Your task to perform on an android device: delete the emails in spam in the gmail app Image 0: 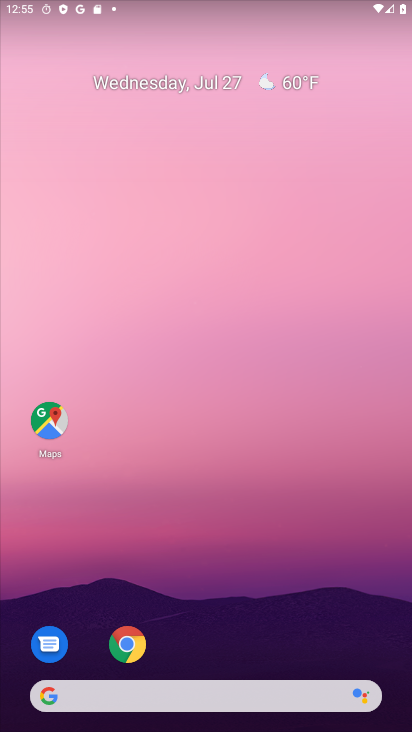
Step 0: click (220, 19)
Your task to perform on an android device: delete the emails in spam in the gmail app Image 1: 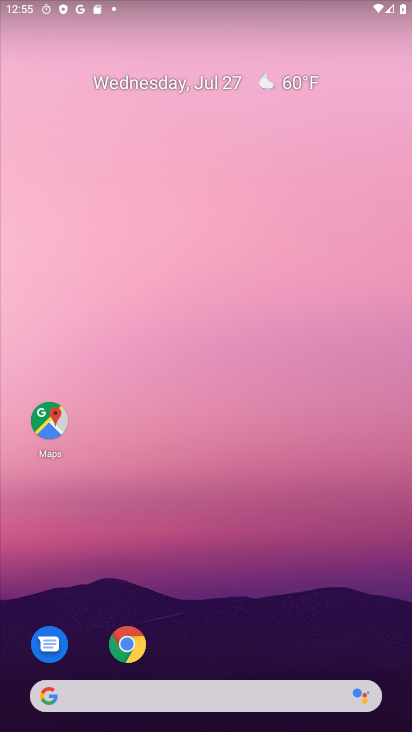
Step 1: drag from (168, 661) to (265, 75)
Your task to perform on an android device: delete the emails in spam in the gmail app Image 2: 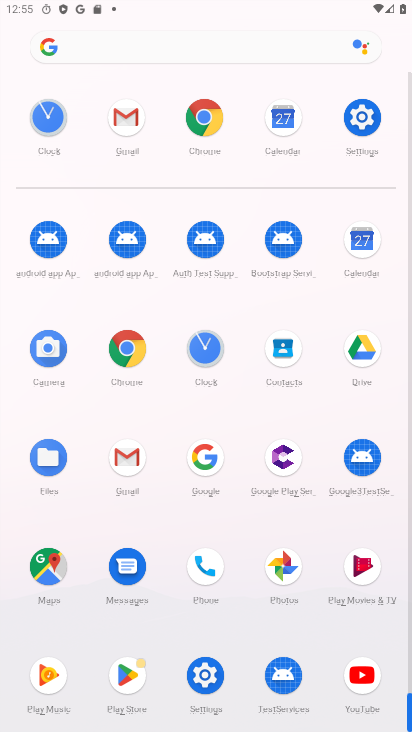
Step 2: click (132, 462)
Your task to perform on an android device: delete the emails in spam in the gmail app Image 3: 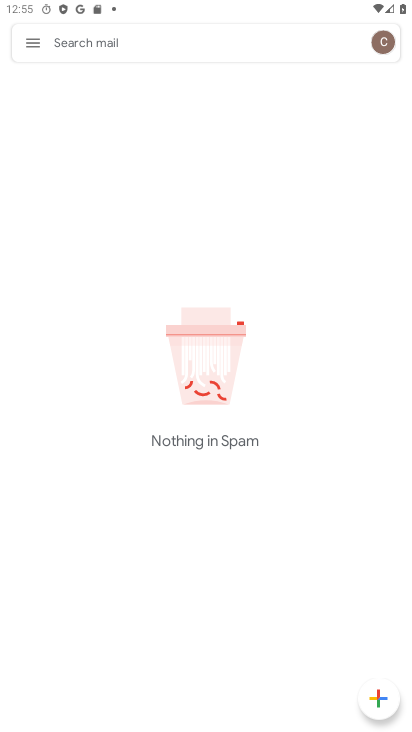
Step 3: click (31, 34)
Your task to perform on an android device: delete the emails in spam in the gmail app Image 4: 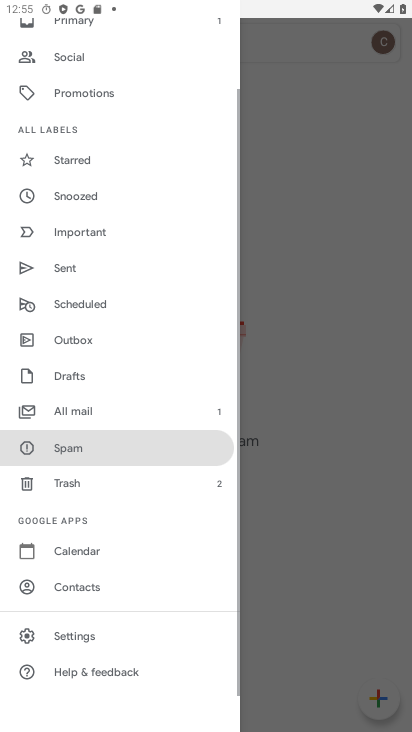
Step 4: click (60, 444)
Your task to perform on an android device: delete the emails in spam in the gmail app Image 5: 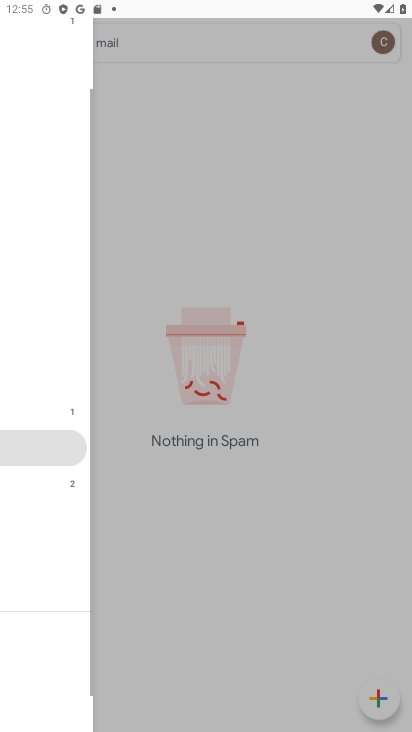
Step 5: click (235, 405)
Your task to perform on an android device: delete the emails in spam in the gmail app Image 6: 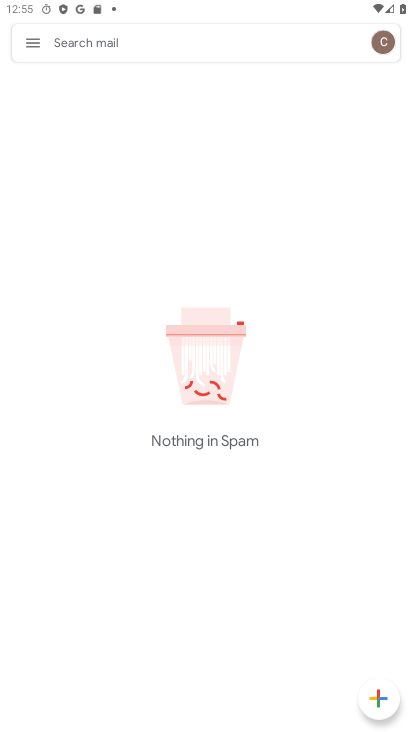
Step 6: click (268, 405)
Your task to perform on an android device: delete the emails in spam in the gmail app Image 7: 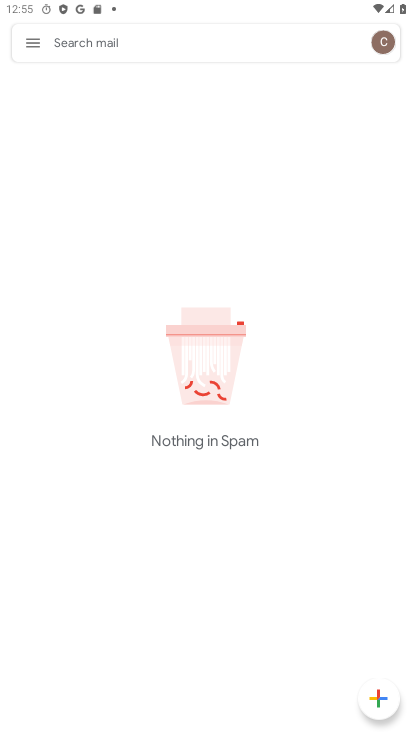
Step 7: task complete